Your task to perform on an android device: Do I have any events today? Image 0: 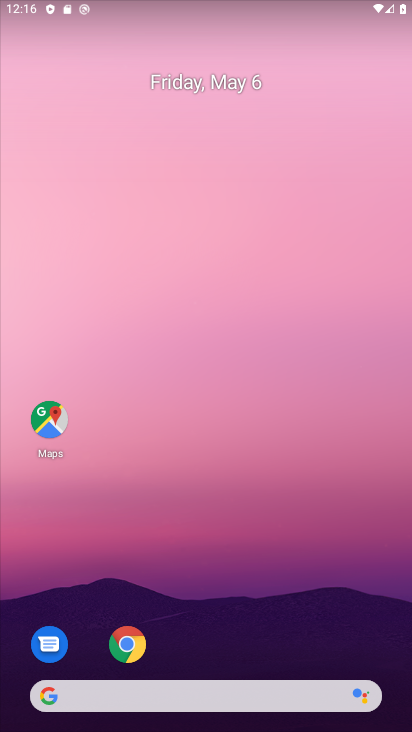
Step 0: drag from (182, 622) to (270, 98)
Your task to perform on an android device: Do I have any events today? Image 1: 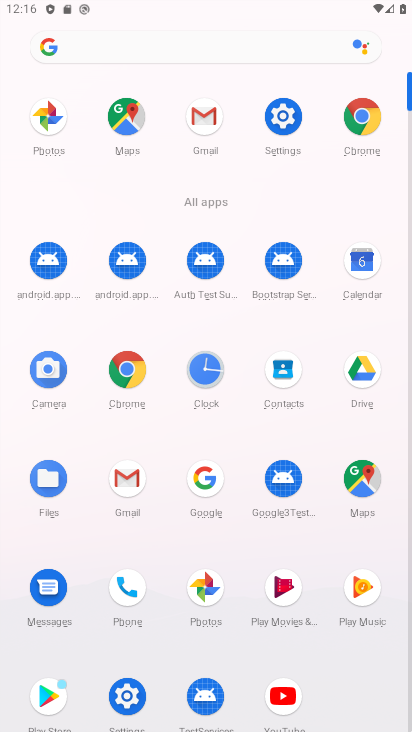
Step 1: click (353, 257)
Your task to perform on an android device: Do I have any events today? Image 2: 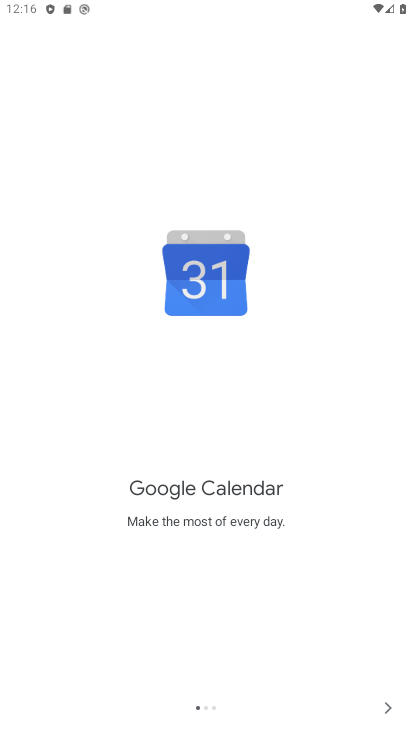
Step 2: click (391, 706)
Your task to perform on an android device: Do I have any events today? Image 3: 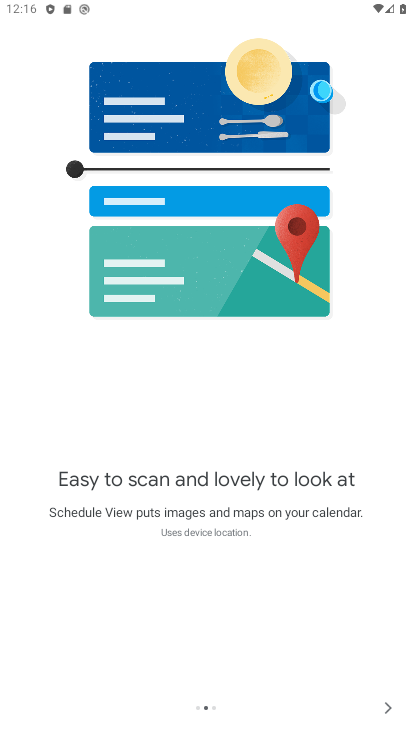
Step 3: click (391, 706)
Your task to perform on an android device: Do I have any events today? Image 4: 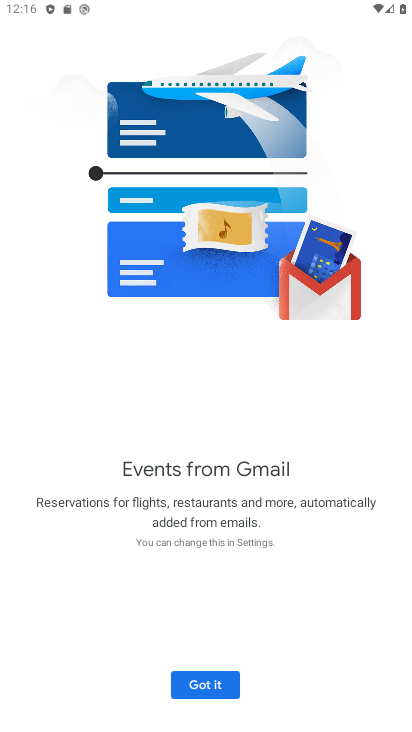
Step 4: click (176, 688)
Your task to perform on an android device: Do I have any events today? Image 5: 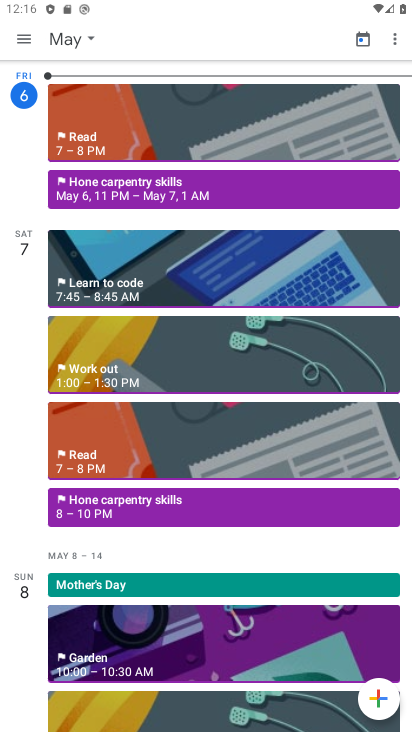
Step 5: click (90, 38)
Your task to perform on an android device: Do I have any events today? Image 6: 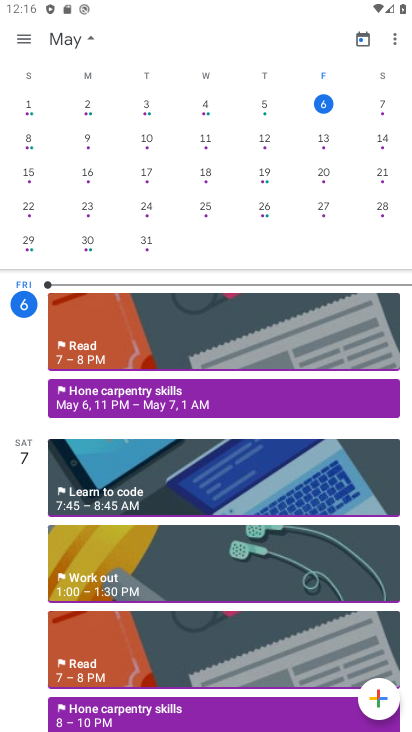
Step 6: click (384, 102)
Your task to perform on an android device: Do I have any events today? Image 7: 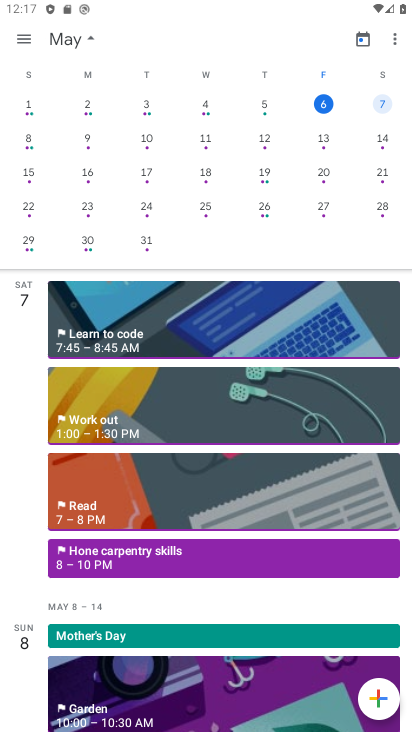
Step 7: click (321, 99)
Your task to perform on an android device: Do I have any events today? Image 8: 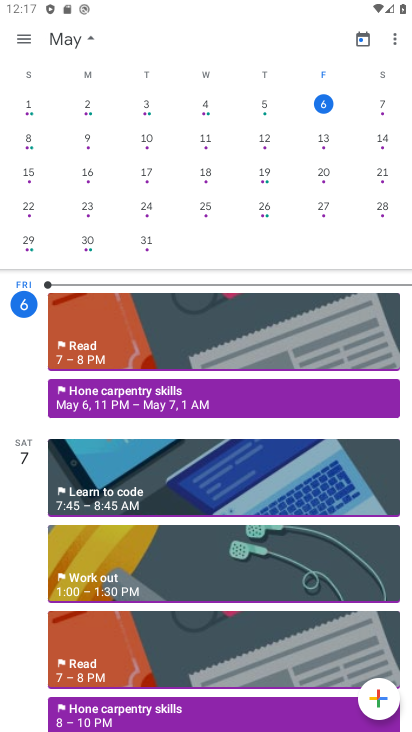
Step 8: task complete